Your task to perform on an android device: Go to Yahoo.com Image 0: 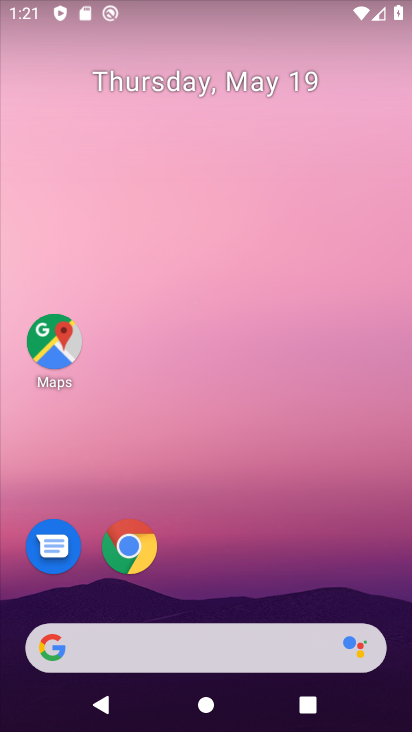
Step 0: click (125, 545)
Your task to perform on an android device: Go to Yahoo.com Image 1: 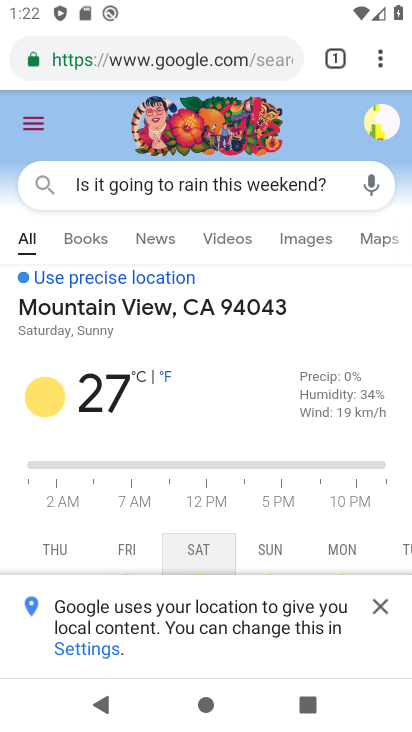
Step 1: click (154, 71)
Your task to perform on an android device: Go to Yahoo.com Image 2: 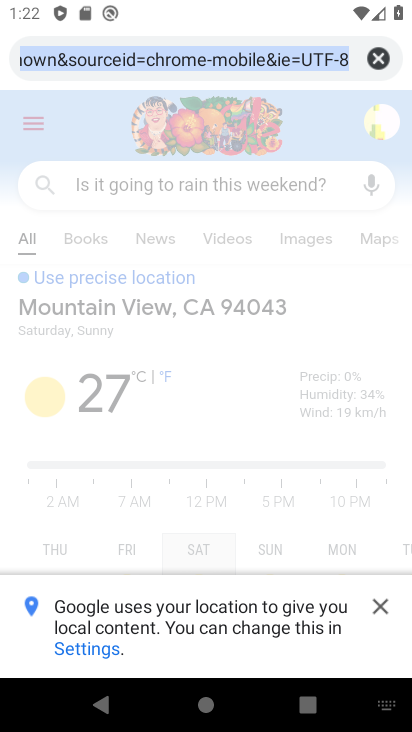
Step 2: type "Yahoo.com"
Your task to perform on an android device: Go to Yahoo.com Image 3: 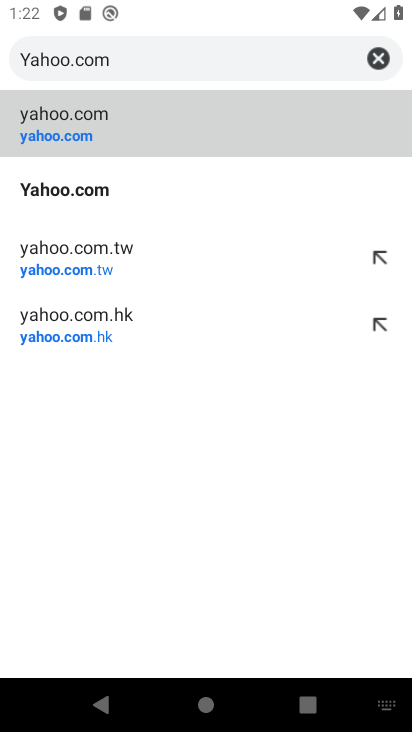
Step 3: click (61, 127)
Your task to perform on an android device: Go to Yahoo.com Image 4: 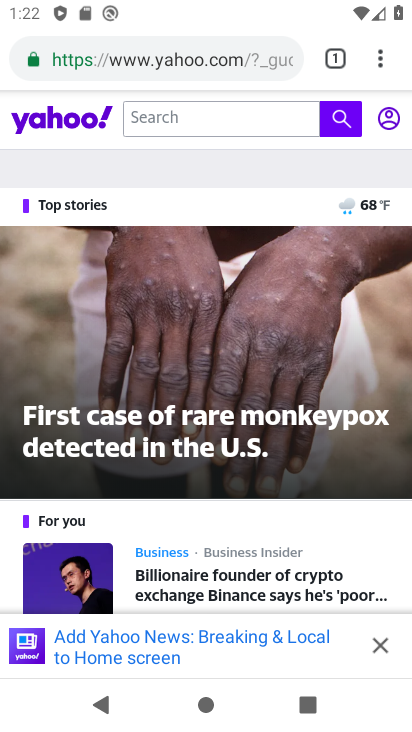
Step 4: task complete